Your task to perform on an android device: visit the assistant section in the google photos Image 0: 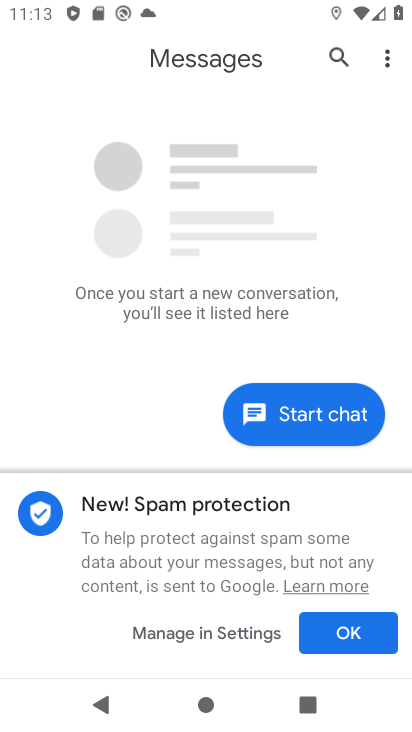
Step 0: press home button
Your task to perform on an android device: visit the assistant section in the google photos Image 1: 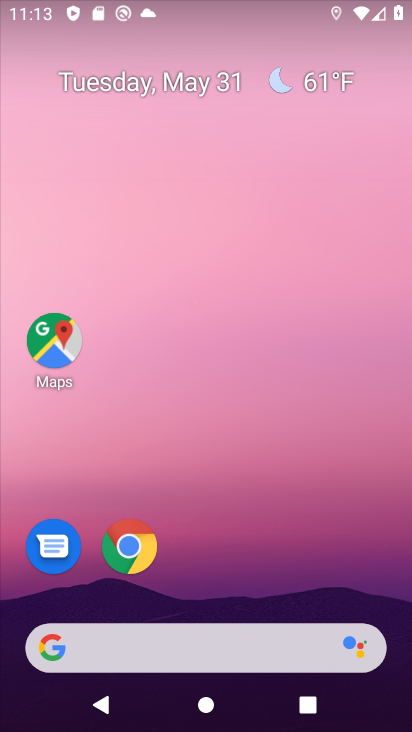
Step 1: drag from (162, 627) to (88, 40)
Your task to perform on an android device: visit the assistant section in the google photos Image 2: 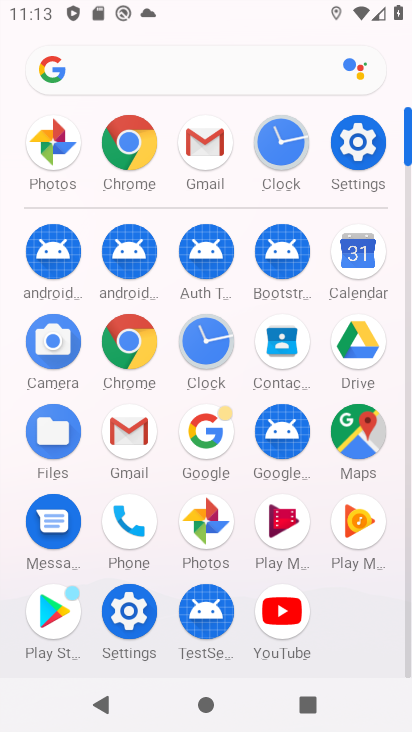
Step 2: click (204, 527)
Your task to perform on an android device: visit the assistant section in the google photos Image 3: 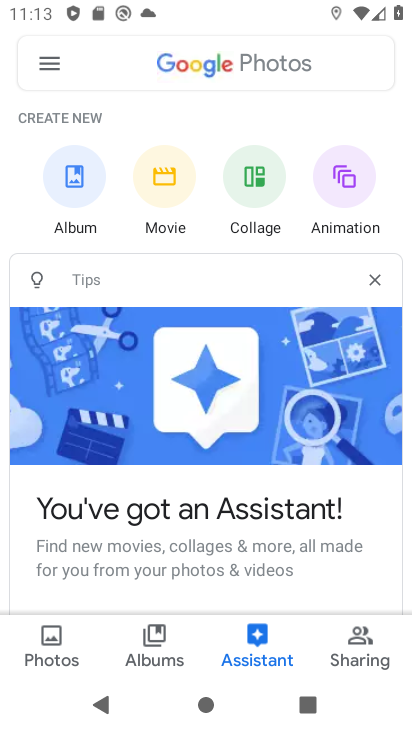
Step 3: click (262, 622)
Your task to perform on an android device: visit the assistant section in the google photos Image 4: 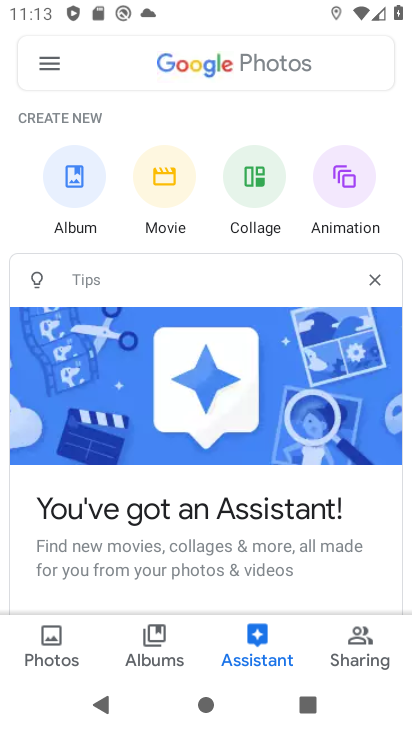
Step 4: task complete